Your task to perform on an android device: open a new tab in the chrome app Image 0: 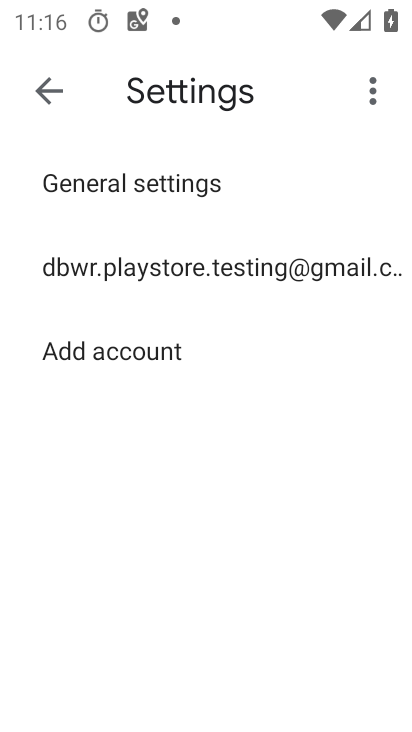
Step 0: press home button
Your task to perform on an android device: open a new tab in the chrome app Image 1: 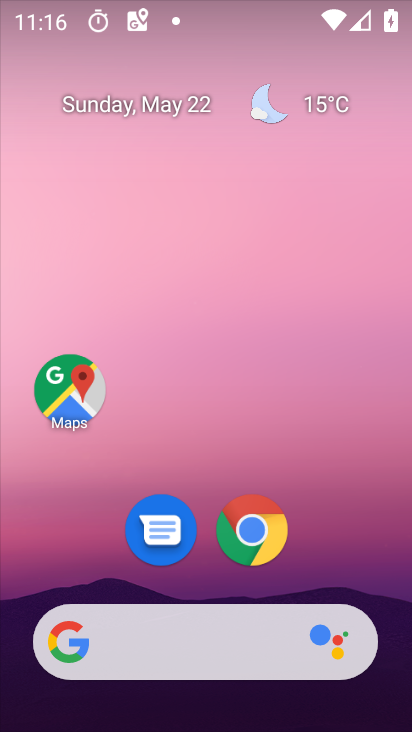
Step 1: click (261, 525)
Your task to perform on an android device: open a new tab in the chrome app Image 2: 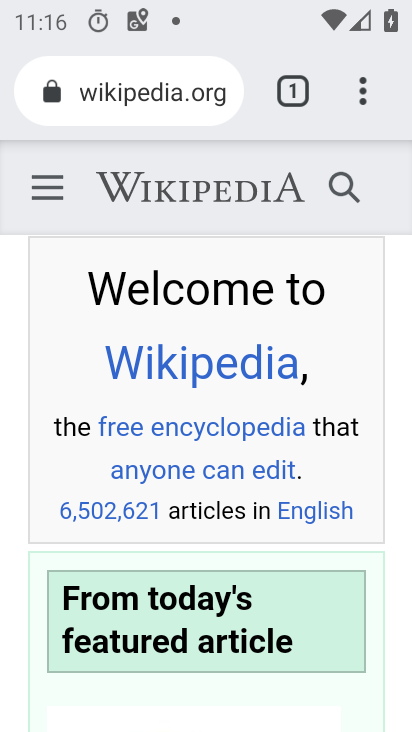
Step 2: click (349, 89)
Your task to perform on an android device: open a new tab in the chrome app Image 3: 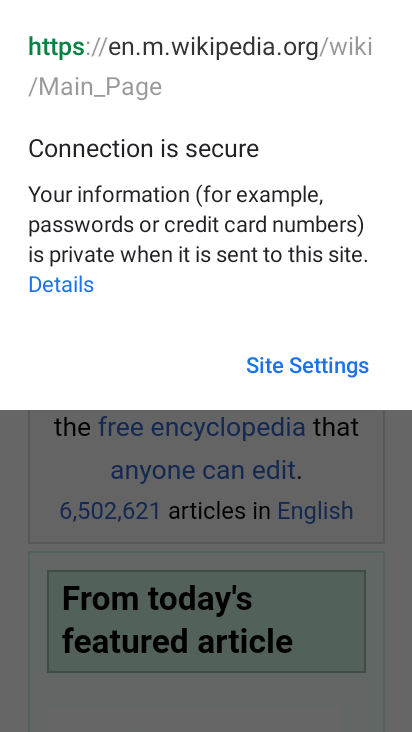
Step 3: press home button
Your task to perform on an android device: open a new tab in the chrome app Image 4: 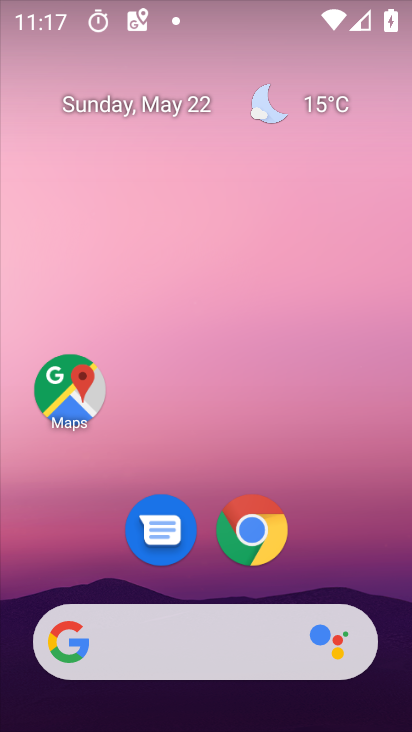
Step 4: click (255, 515)
Your task to perform on an android device: open a new tab in the chrome app Image 5: 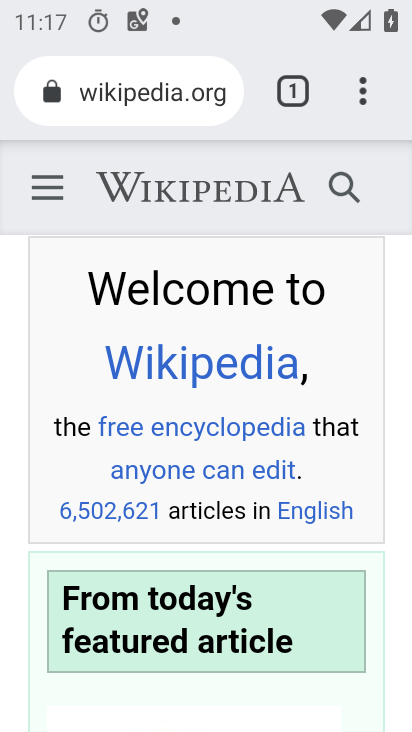
Step 5: click (359, 81)
Your task to perform on an android device: open a new tab in the chrome app Image 6: 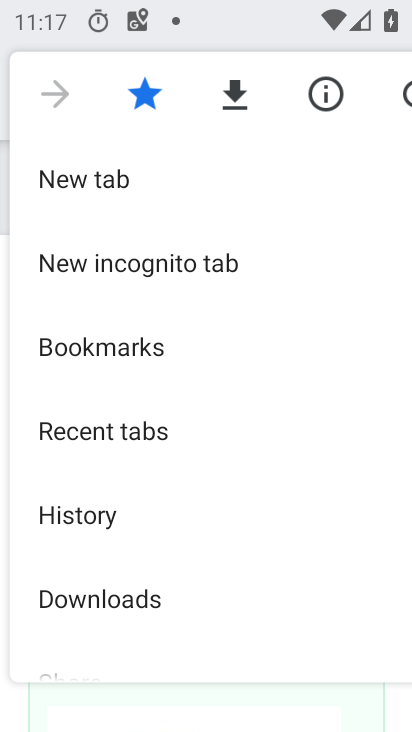
Step 6: click (99, 181)
Your task to perform on an android device: open a new tab in the chrome app Image 7: 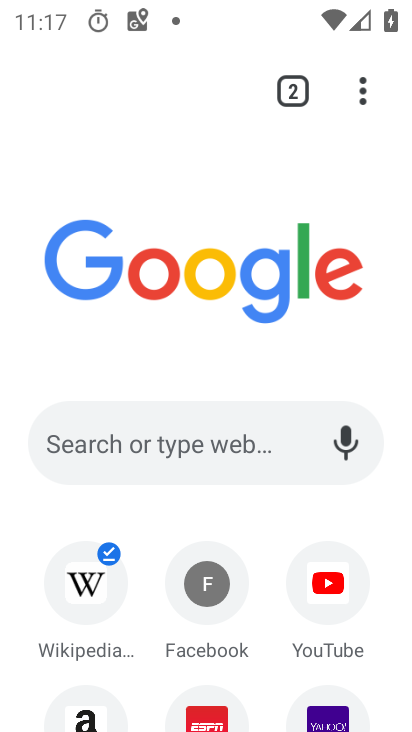
Step 7: task complete